Your task to perform on an android device: Go to Yahoo.com Image 0: 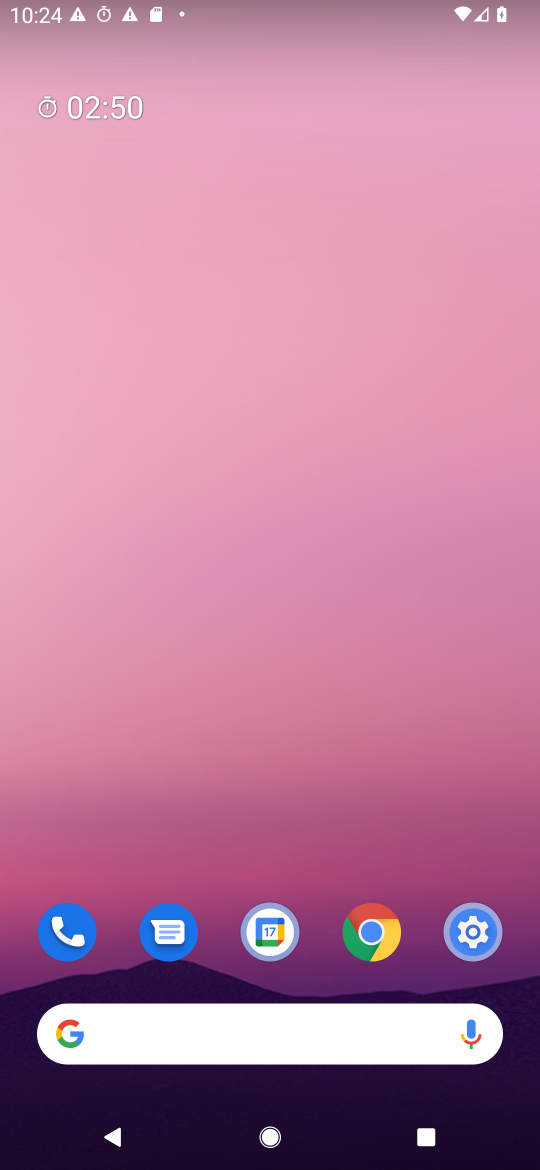
Step 0: click (358, 920)
Your task to perform on an android device: Go to Yahoo.com Image 1: 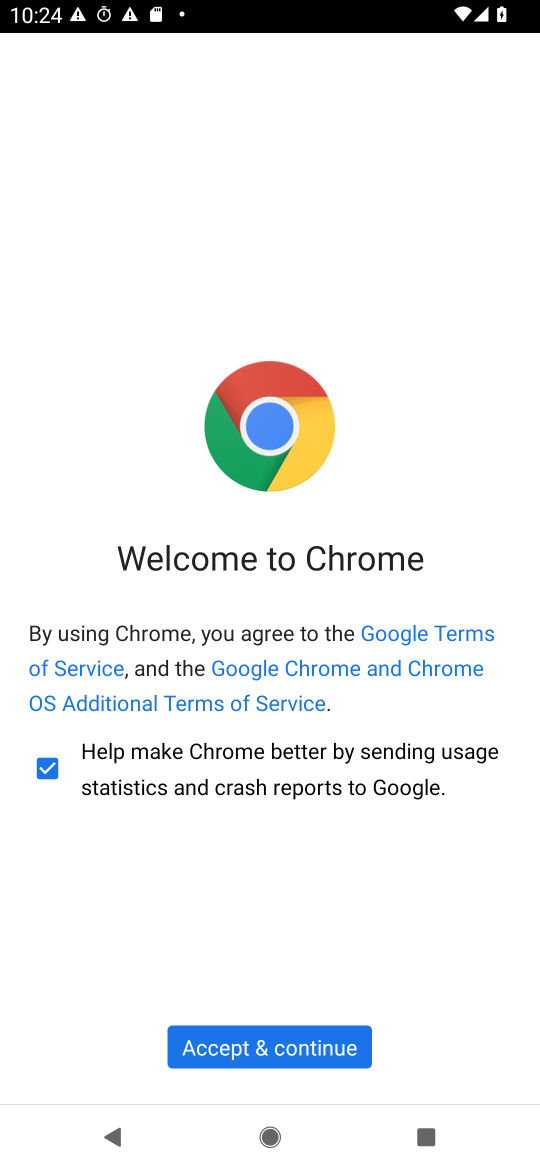
Step 1: click (337, 1051)
Your task to perform on an android device: Go to Yahoo.com Image 2: 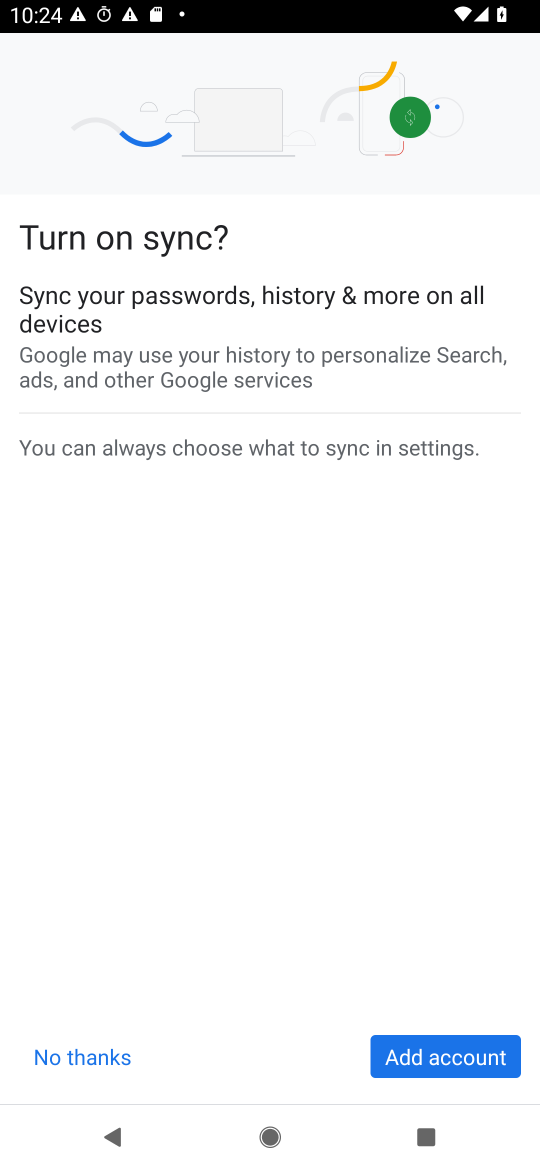
Step 2: click (59, 1063)
Your task to perform on an android device: Go to Yahoo.com Image 3: 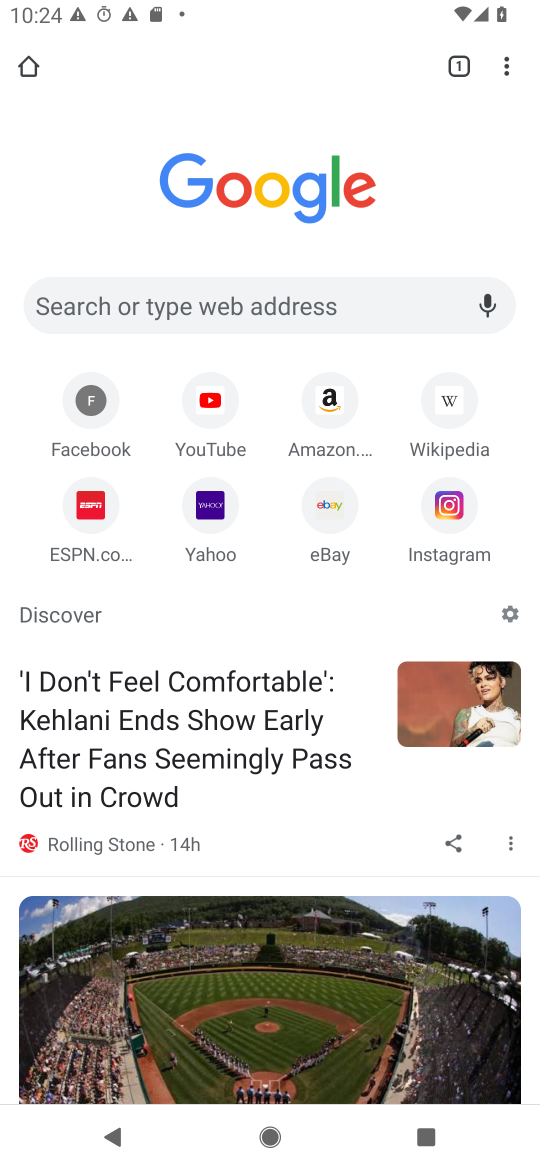
Step 3: click (219, 508)
Your task to perform on an android device: Go to Yahoo.com Image 4: 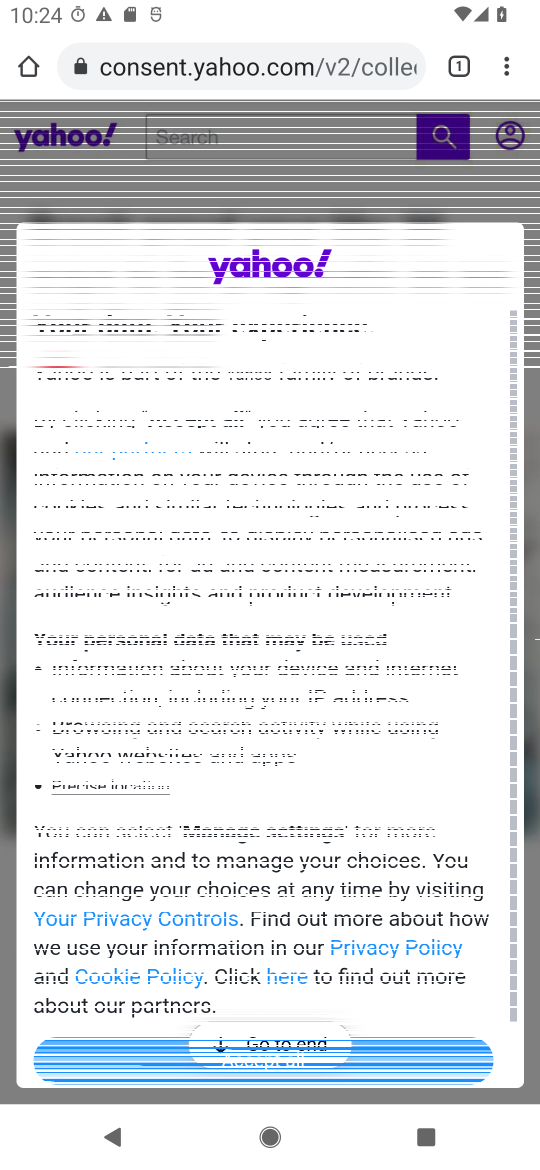
Step 4: task complete